Your task to perform on an android device: turn on the 12-hour format for clock Image 0: 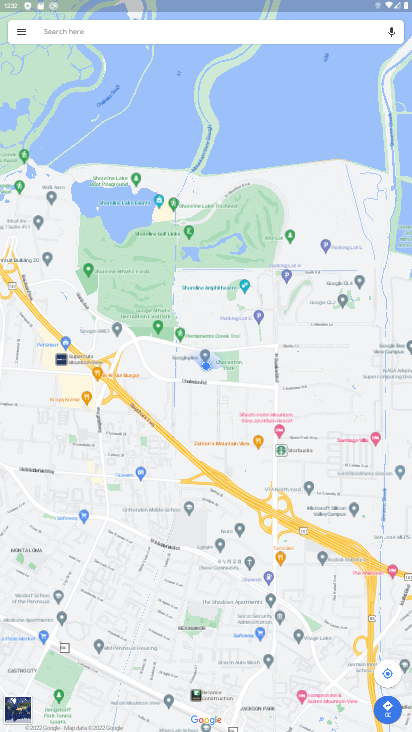
Step 0: press home button
Your task to perform on an android device: turn on the 12-hour format for clock Image 1: 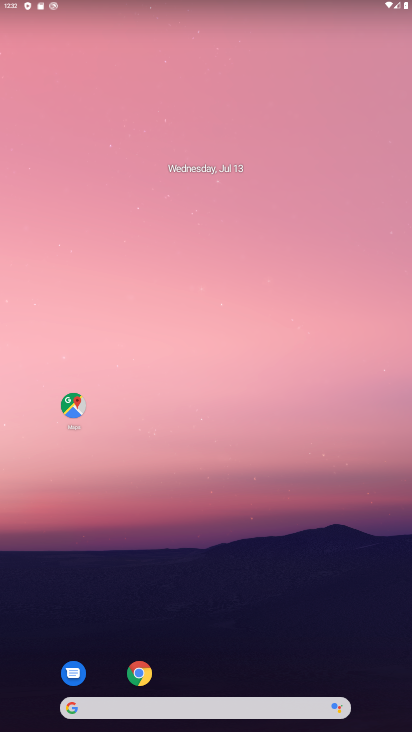
Step 1: drag from (186, 712) to (350, 279)
Your task to perform on an android device: turn on the 12-hour format for clock Image 2: 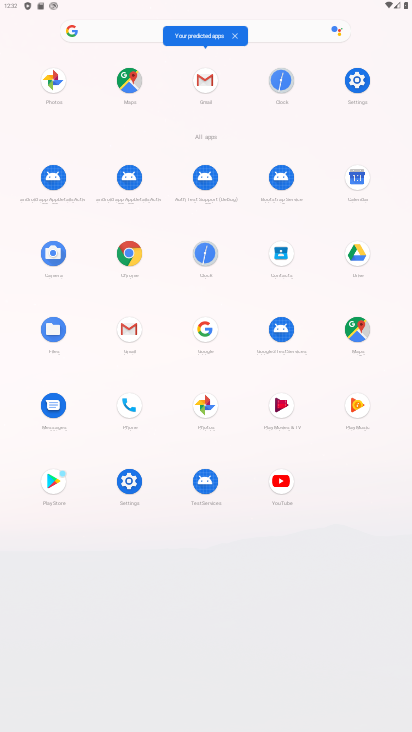
Step 2: click (201, 254)
Your task to perform on an android device: turn on the 12-hour format for clock Image 3: 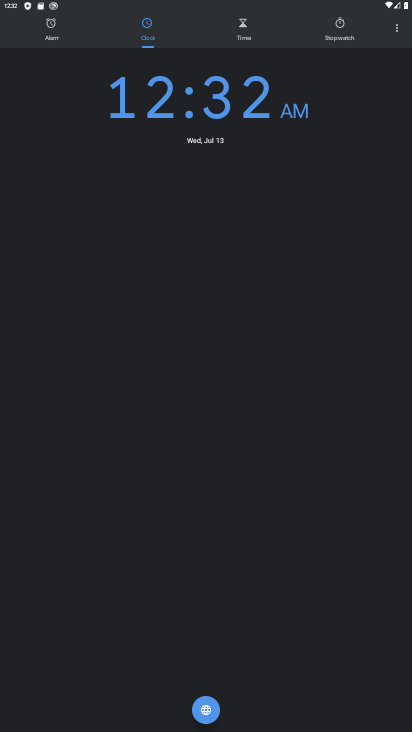
Step 3: click (400, 24)
Your task to perform on an android device: turn on the 12-hour format for clock Image 4: 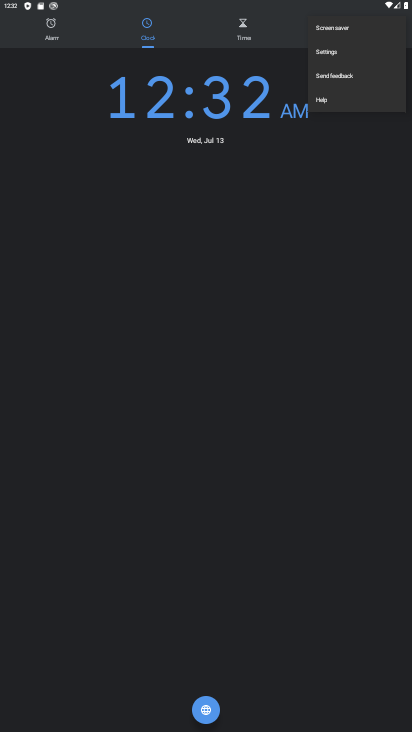
Step 4: click (323, 49)
Your task to perform on an android device: turn on the 12-hour format for clock Image 5: 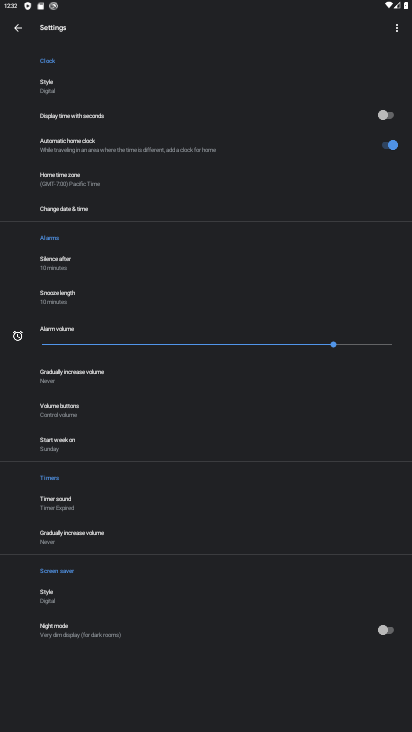
Step 5: click (70, 212)
Your task to perform on an android device: turn on the 12-hour format for clock Image 6: 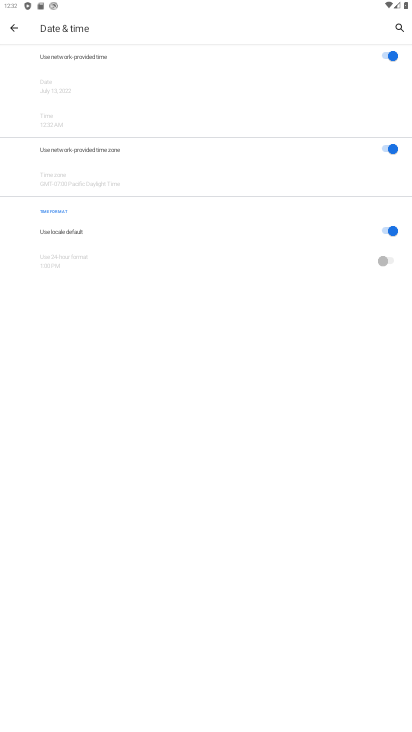
Step 6: task complete